Your task to perform on an android device: search for starred emails in the gmail app Image 0: 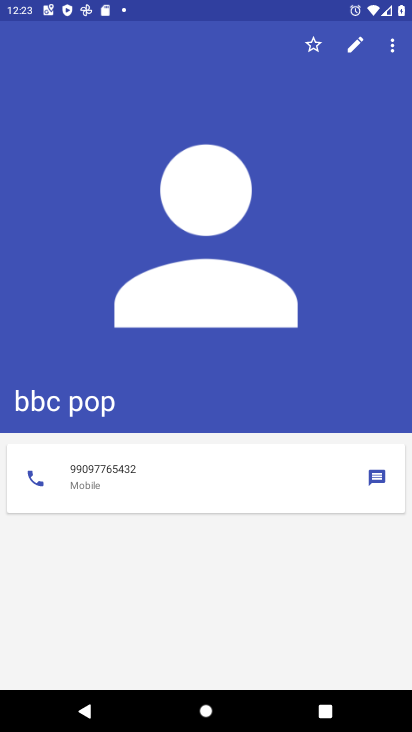
Step 0: press home button
Your task to perform on an android device: search for starred emails in the gmail app Image 1: 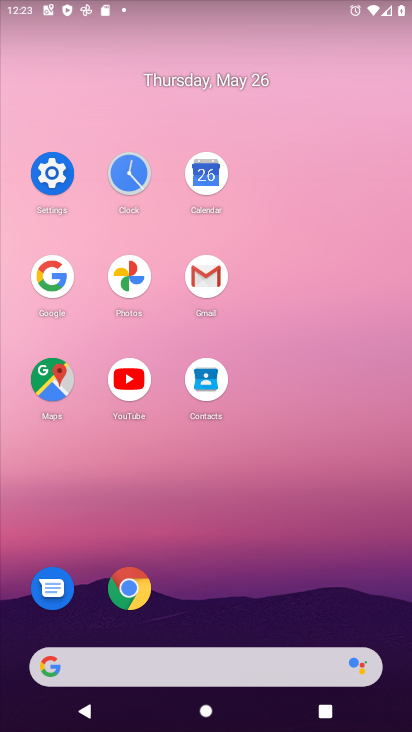
Step 1: click (202, 276)
Your task to perform on an android device: search for starred emails in the gmail app Image 2: 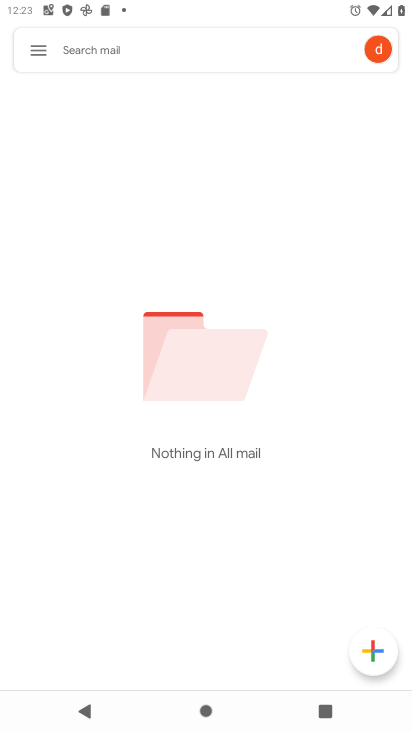
Step 2: click (30, 44)
Your task to perform on an android device: search for starred emails in the gmail app Image 3: 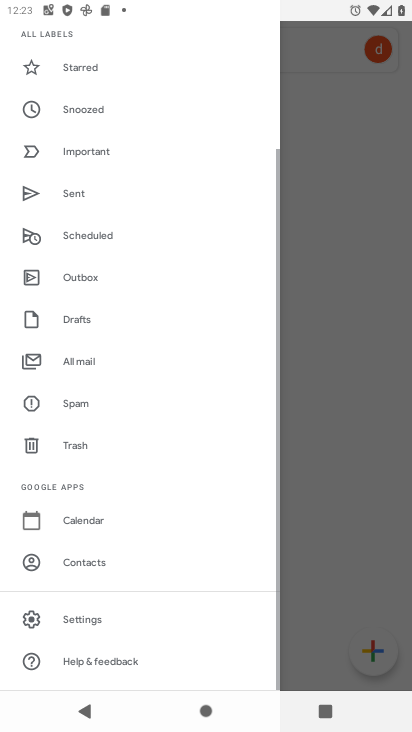
Step 3: drag from (118, 112) to (73, 544)
Your task to perform on an android device: search for starred emails in the gmail app Image 4: 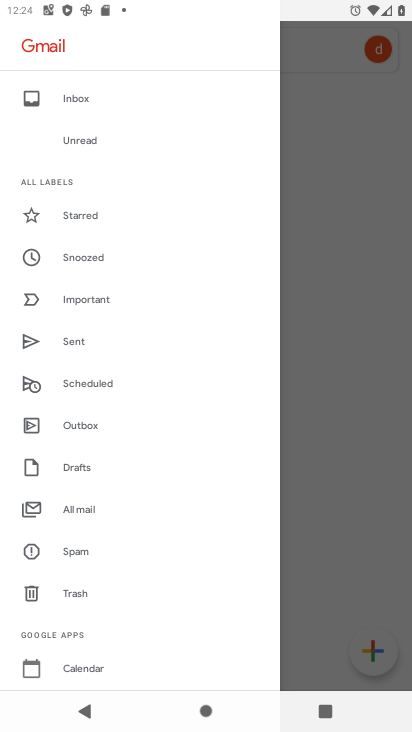
Step 4: click (84, 212)
Your task to perform on an android device: search for starred emails in the gmail app Image 5: 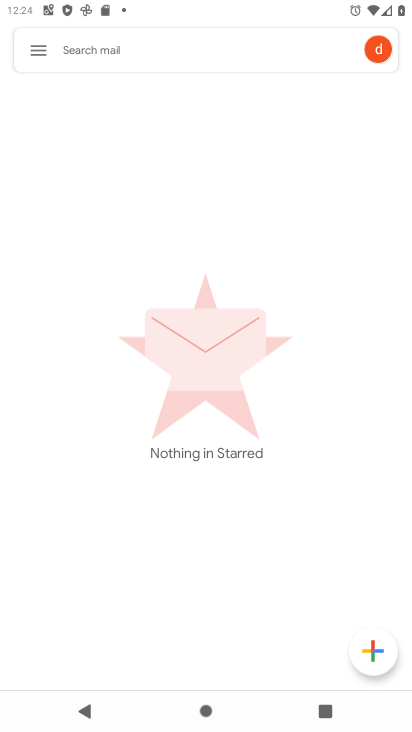
Step 5: task complete